Your task to perform on an android device: turn off improve location accuracy Image 0: 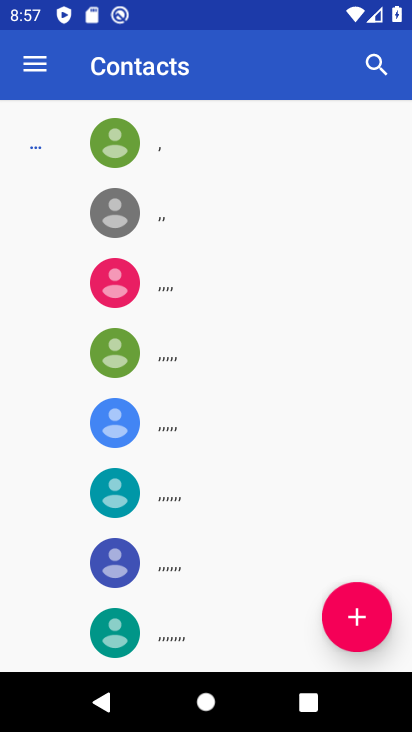
Step 0: press home button
Your task to perform on an android device: turn off improve location accuracy Image 1: 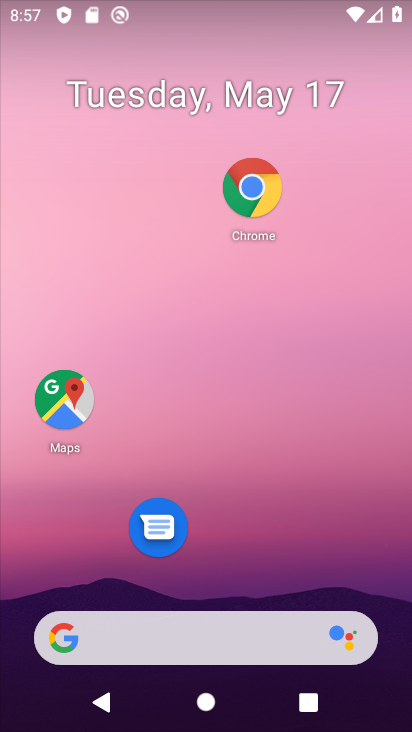
Step 1: drag from (292, 555) to (342, 126)
Your task to perform on an android device: turn off improve location accuracy Image 2: 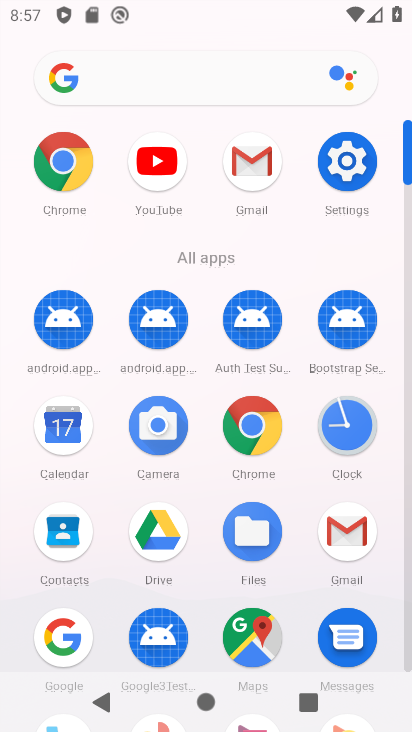
Step 2: click (335, 199)
Your task to perform on an android device: turn off improve location accuracy Image 3: 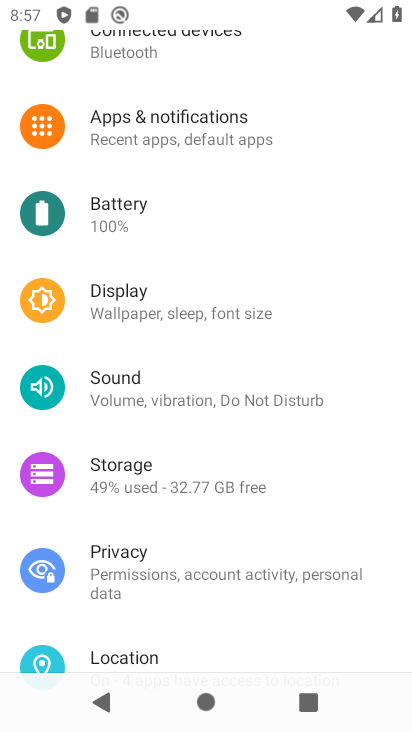
Step 3: drag from (194, 490) to (242, 307)
Your task to perform on an android device: turn off improve location accuracy Image 4: 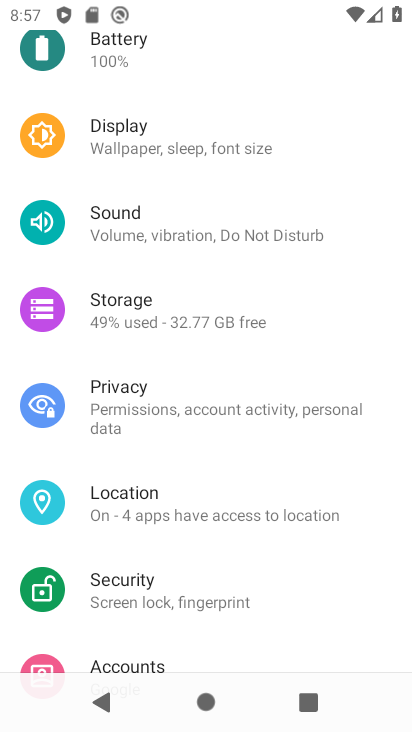
Step 4: click (195, 491)
Your task to perform on an android device: turn off improve location accuracy Image 5: 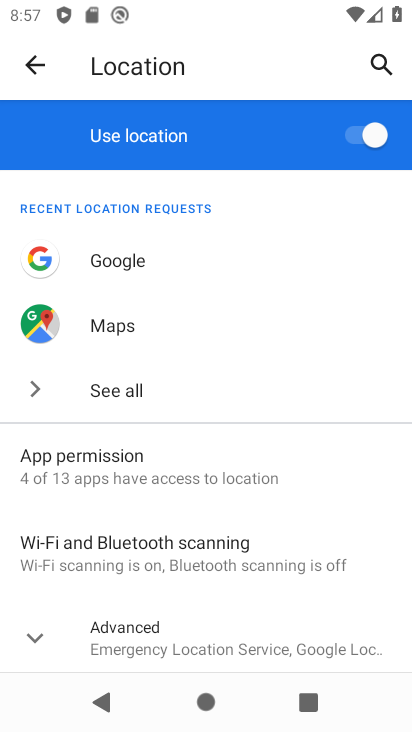
Step 5: click (205, 607)
Your task to perform on an android device: turn off improve location accuracy Image 6: 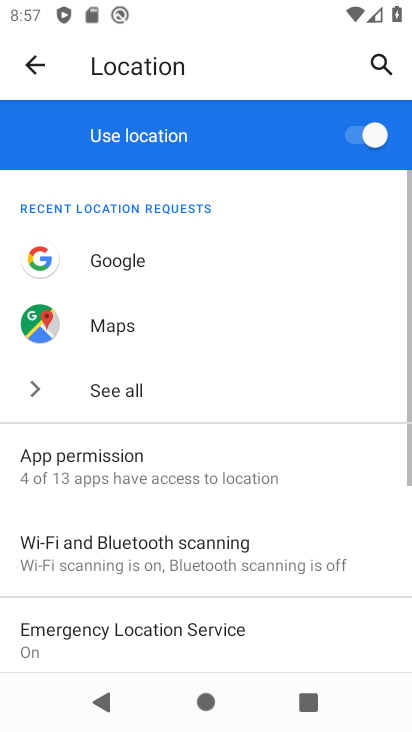
Step 6: drag from (324, 558) to (324, 312)
Your task to perform on an android device: turn off improve location accuracy Image 7: 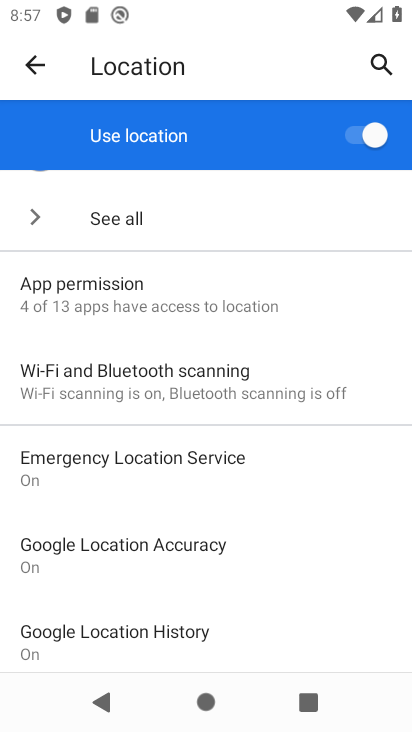
Step 7: click (211, 543)
Your task to perform on an android device: turn off improve location accuracy Image 8: 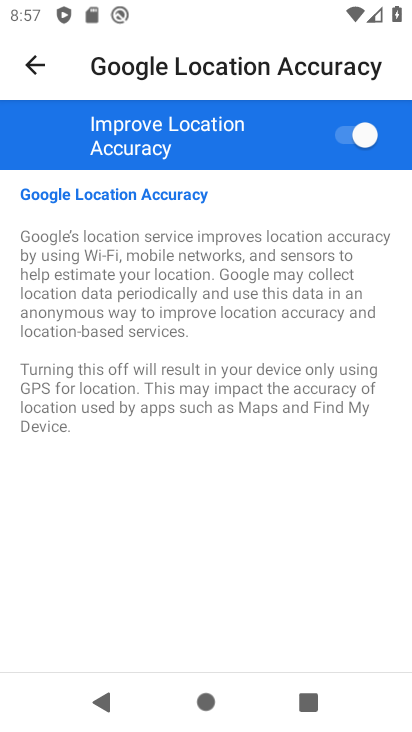
Step 8: click (333, 147)
Your task to perform on an android device: turn off improve location accuracy Image 9: 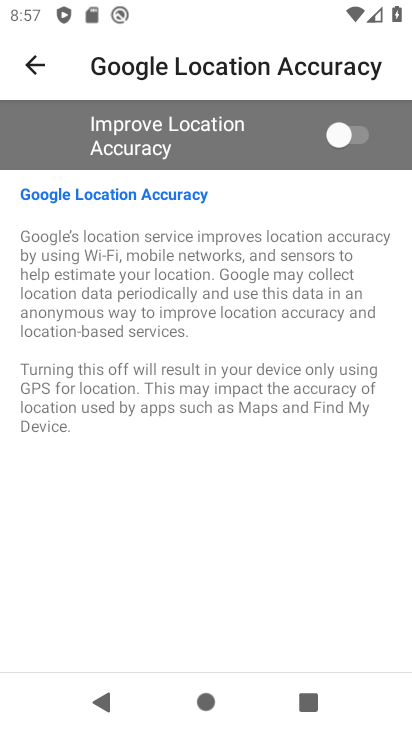
Step 9: task complete